Your task to perform on an android device: What's the weather? Image 0: 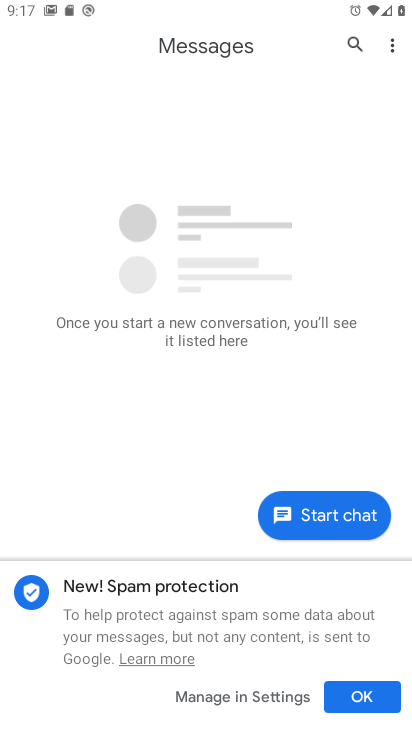
Step 0: press home button
Your task to perform on an android device: What's the weather? Image 1: 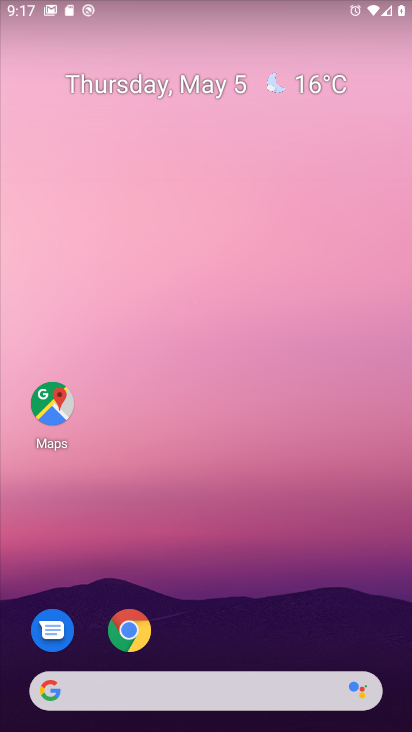
Step 1: drag from (299, 521) to (308, 8)
Your task to perform on an android device: What's the weather? Image 2: 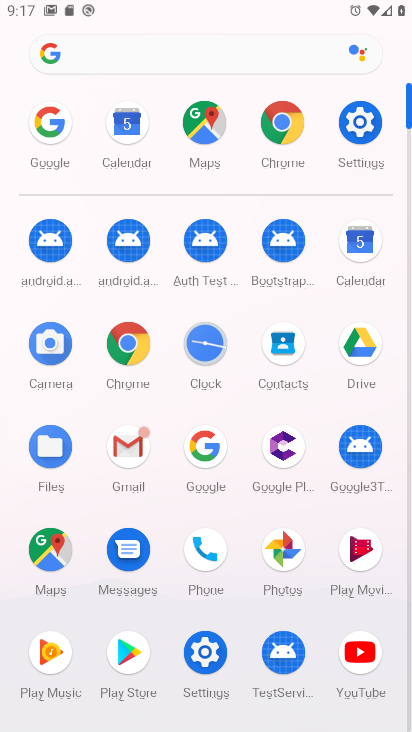
Step 2: click (46, 131)
Your task to perform on an android device: What's the weather? Image 3: 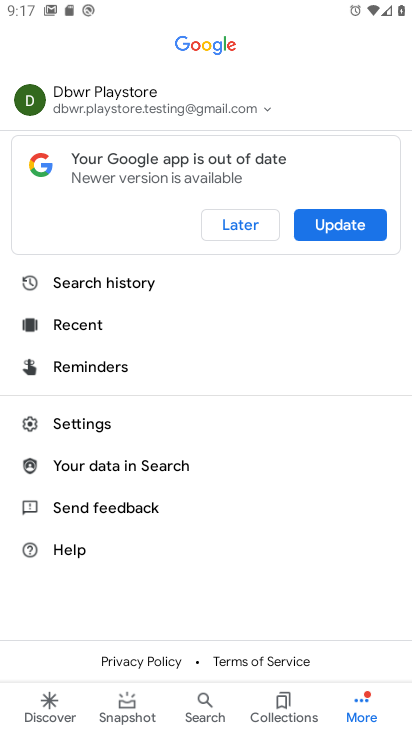
Step 3: press back button
Your task to perform on an android device: What's the weather? Image 4: 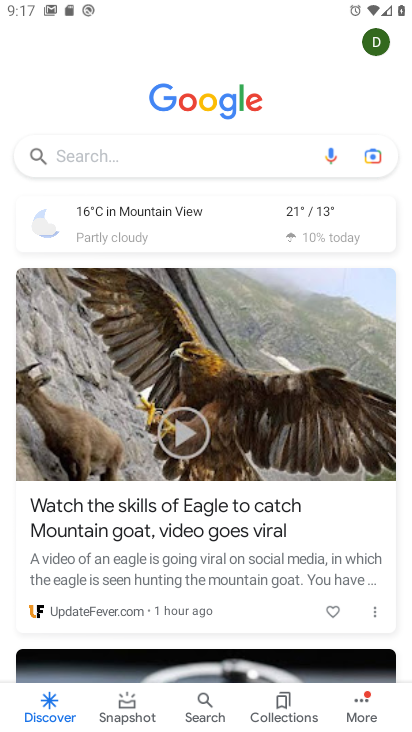
Step 4: click (257, 219)
Your task to perform on an android device: What's the weather? Image 5: 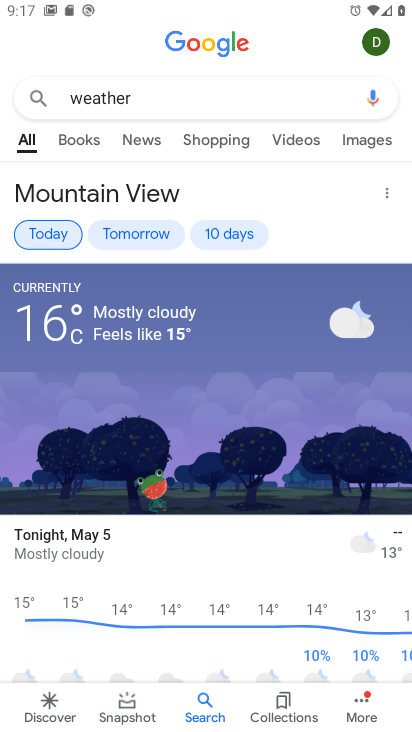
Step 5: task complete